Your task to perform on an android device: Open privacy settings Image 0: 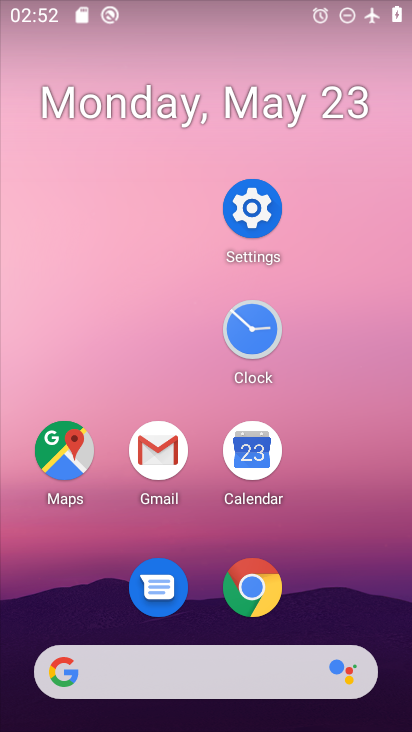
Step 0: click (249, 195)
Your task to perform on an android device: Open privacy settings Image 1: 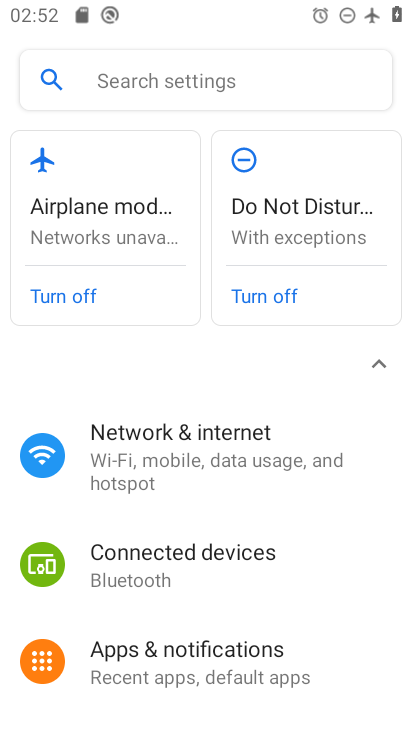
Step 1: drag from (253, 581) to (264, 260)
Your task to perform on an android device: Open privacy settings Image 2: 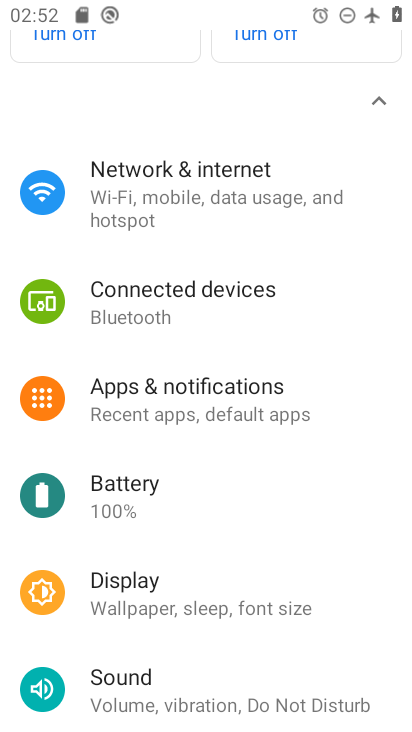
Step 2: drag from (232, 656) to (247, 319)
Your task to perform on an android device: Open privacy settings Image 3: 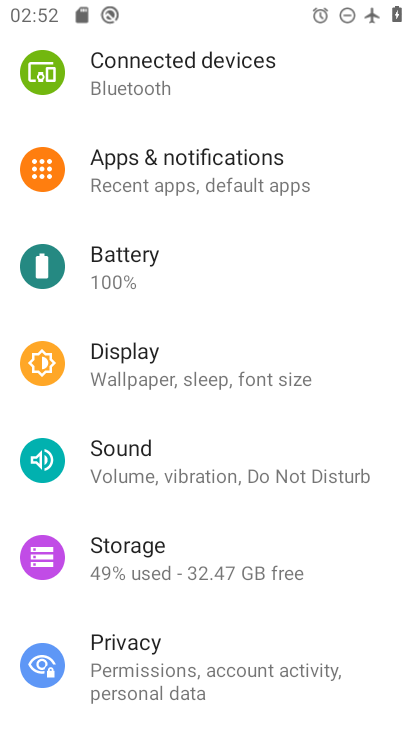
Step 3: drag from (215, 575) to (215, 426)
Your task to perform on an android device: Open privacy settings Image 4: 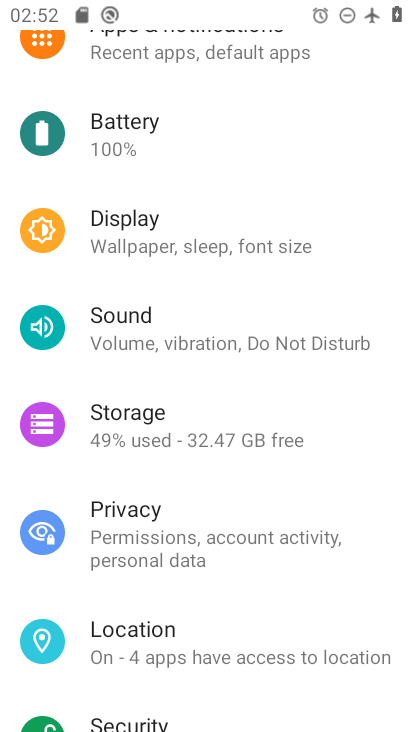
Step 4: click (216, 533)
Your task to perform on an android device: Open privacy settings Image 5: 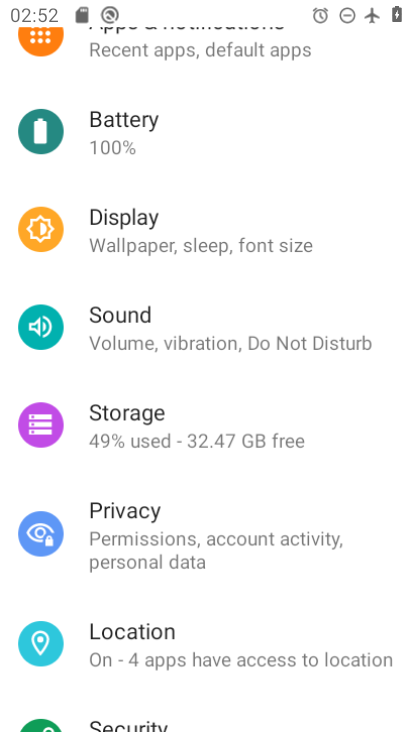
Step 5: task complete